Your task to perform on an android device: Go to CNN.com Image 0: 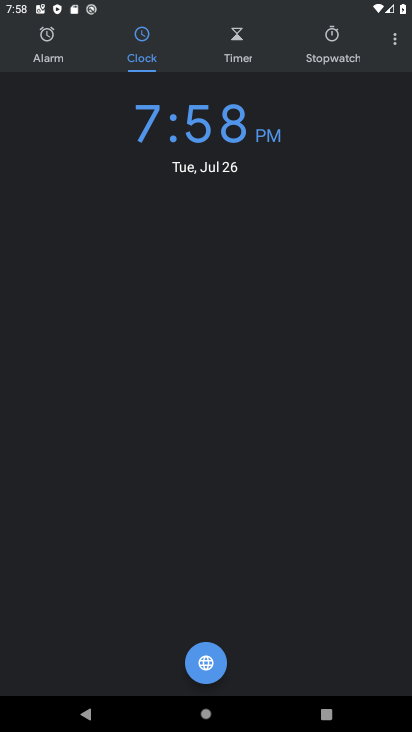
Step 0: press home button
Your task to perform on an android device: Go to CNN.com Image 1: 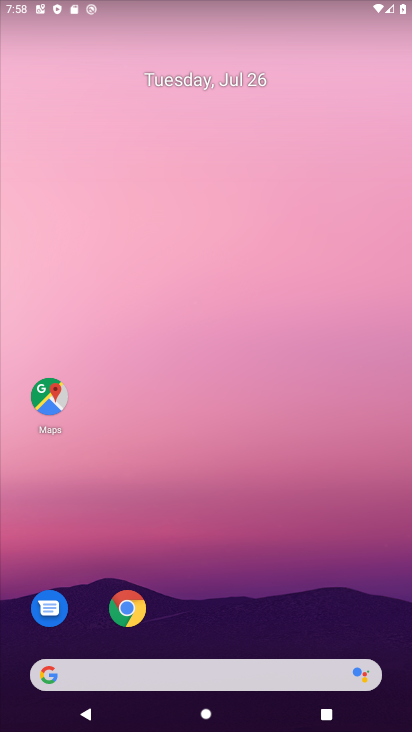
Step 1: click (112, 664)
Your task to perform on an android device: Go to CNN.com Image 2: 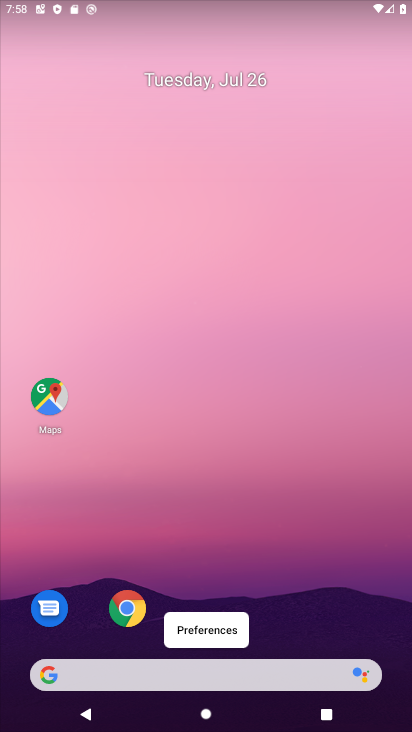
Step 2: click (102, 672)
Your task to perform on an android device: Go to CNN.com Image 3: 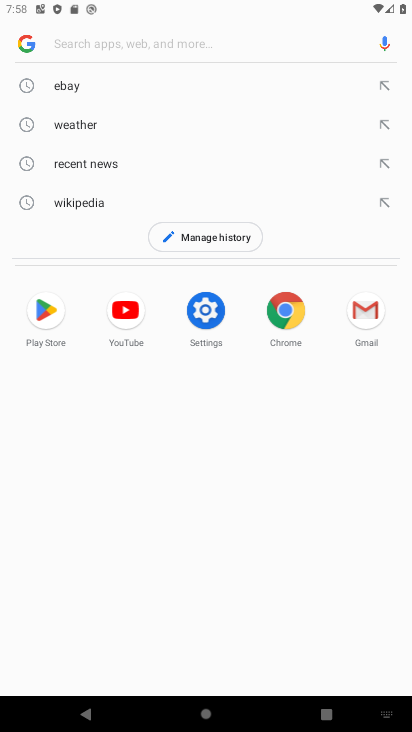
Step 3: type "CNN.com"
Your task to perform on an android device: Go to CNN.com Image 4: 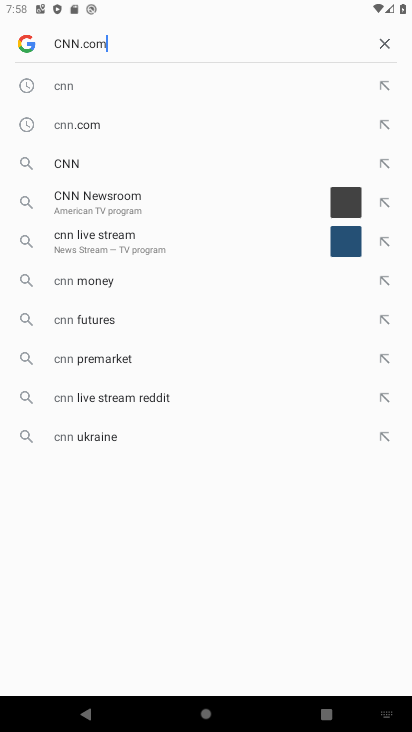
Step 4: type ""
Your task to perform on an android device: Go to CNN.com Image 5: 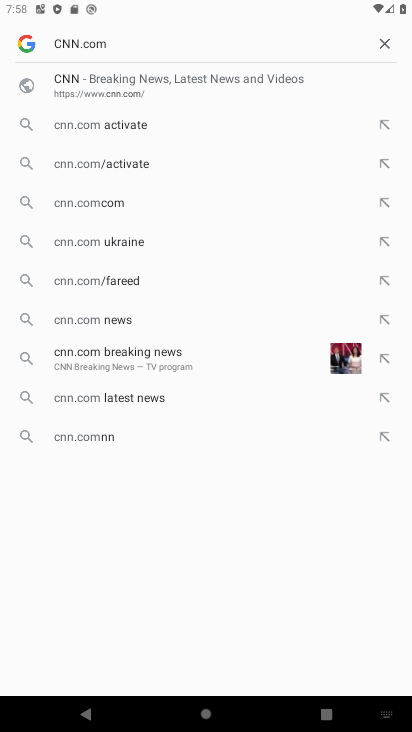
Step 5: click (93, 77)
Your task to perform on an android device: Go to CNN.com Image 6: 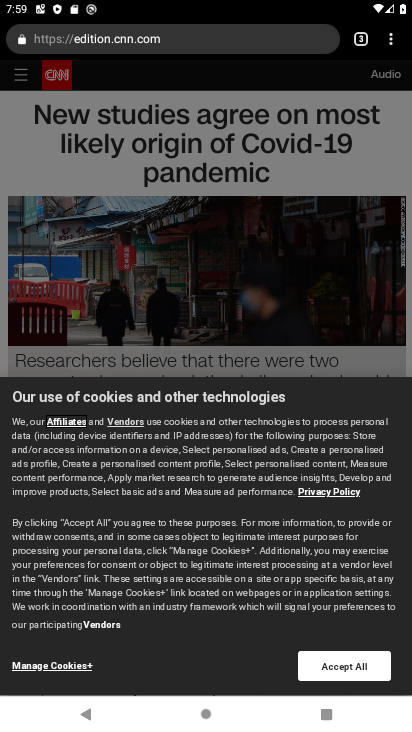
Step 6: task complete